Your task to perform on an android device: Open settings on Google Maps Image 0: 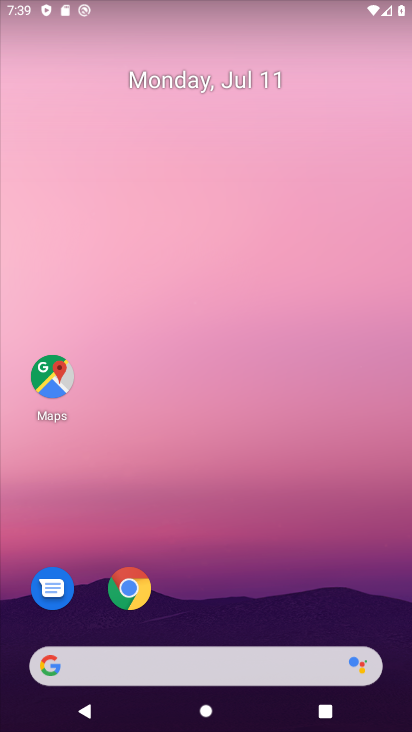
Step 0: click (51, 386)
Your task to perform on an android device: Open settings on Google Maps Image 1: 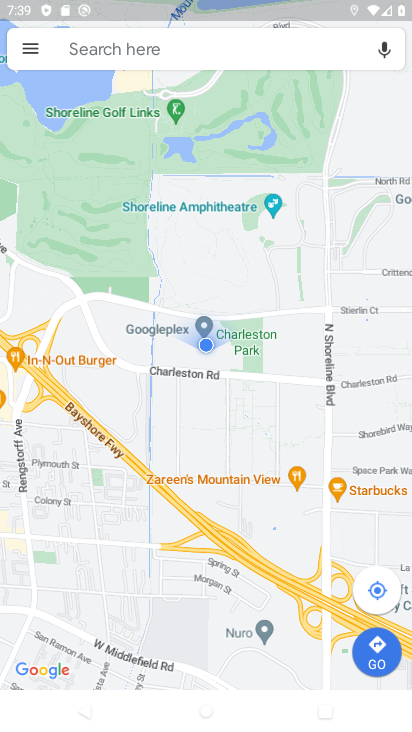
Step 1: click (25, 49)
Your task to perform on an android device: Open settings on Google Maps Image 2: 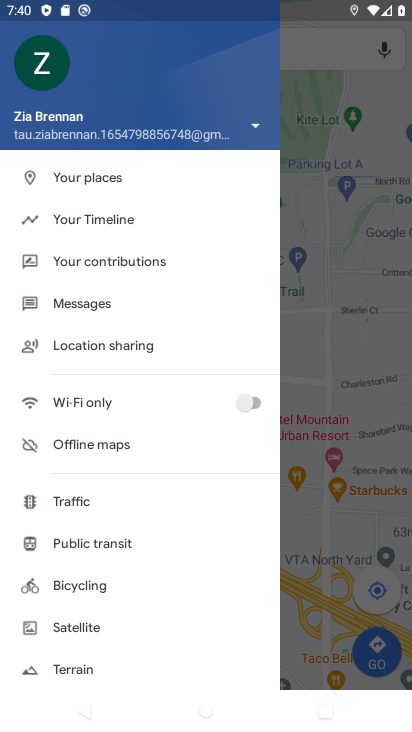
Step 2: drag from (161, 626) to (186, 209)
Your task to perform on an android device: Open settings on Google Maps Image 3: 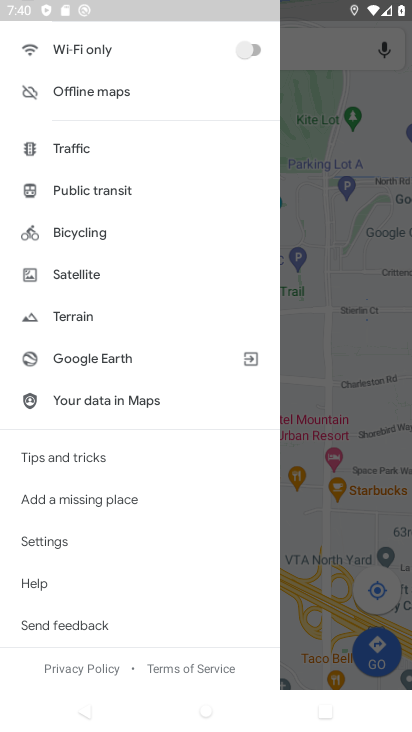
Step 3: click (42, 544)
Your task to perform on an android device: Open settings on Google Maps Image 4: 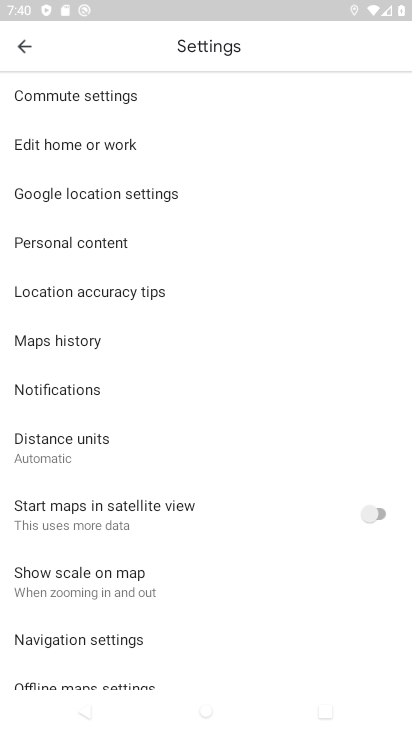
Step 4: task complete